Your task to perform on an android device: snooze an email in the gmail app Image 0: 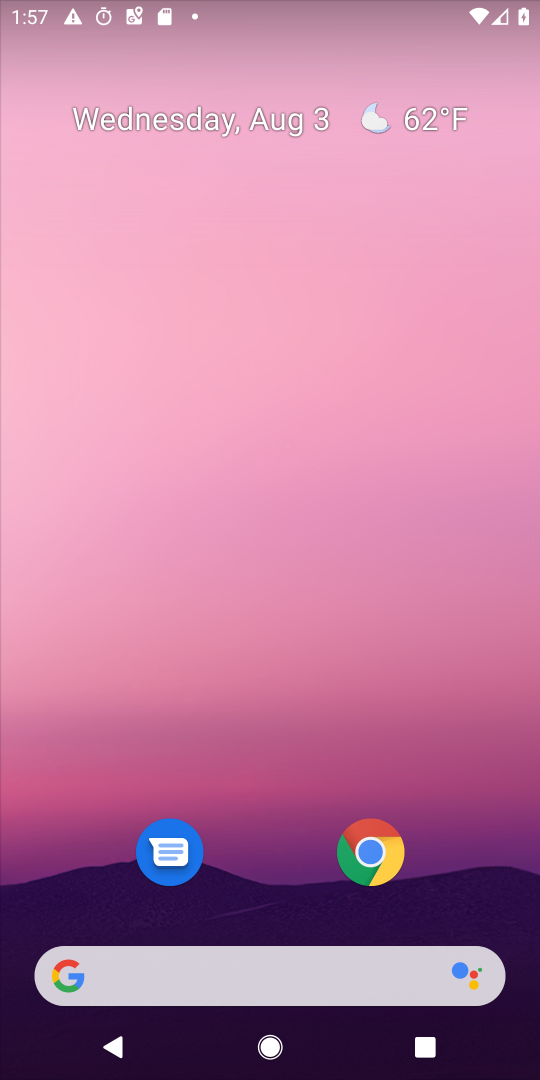
Step 0: drag from (498, 915) to (256, 67)
Your task to perform on an android device: snooze an email in the gmail app Image 1: 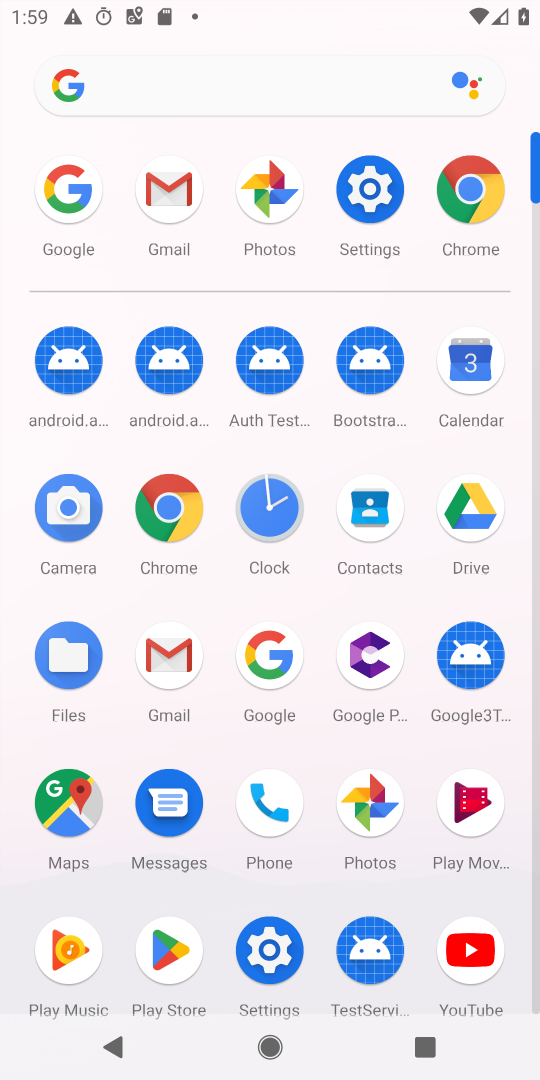
Step 1: click (157, 673)
Your task to perform on an android device: snooze an email in the gmail app Image 2: 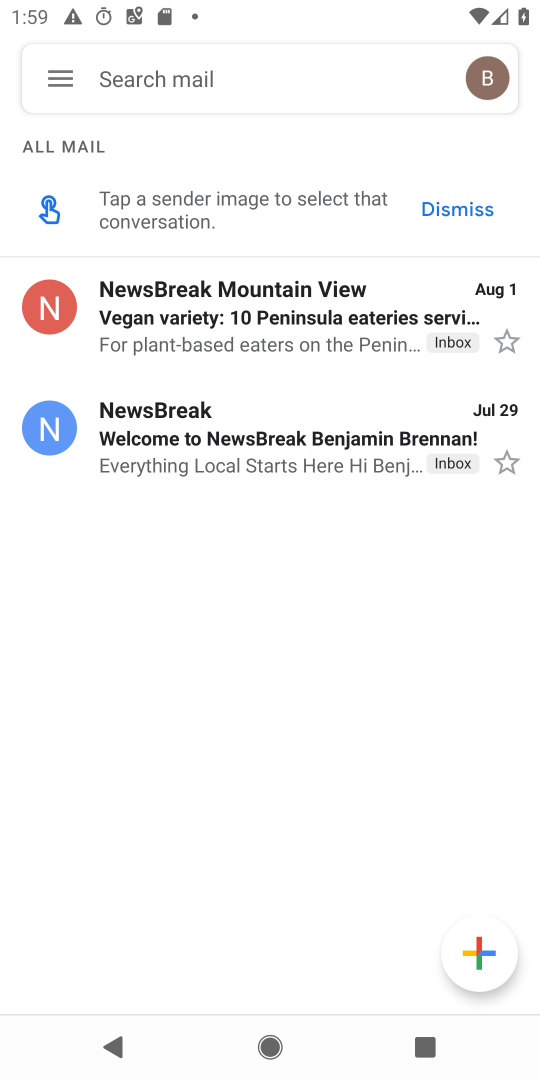
Step 2: click (53, 61)
Your task to perform on an android device: snooze an email in the gmail app Image 3: 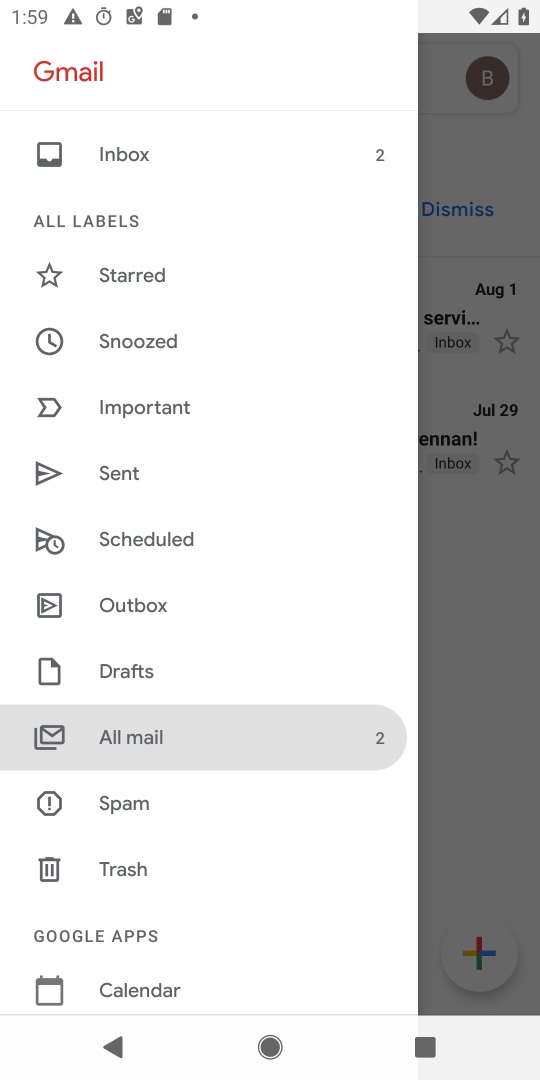
Step 3: click (144, 151)
Your task to perform on an android device: snooze an email in the gmail app Image 4: 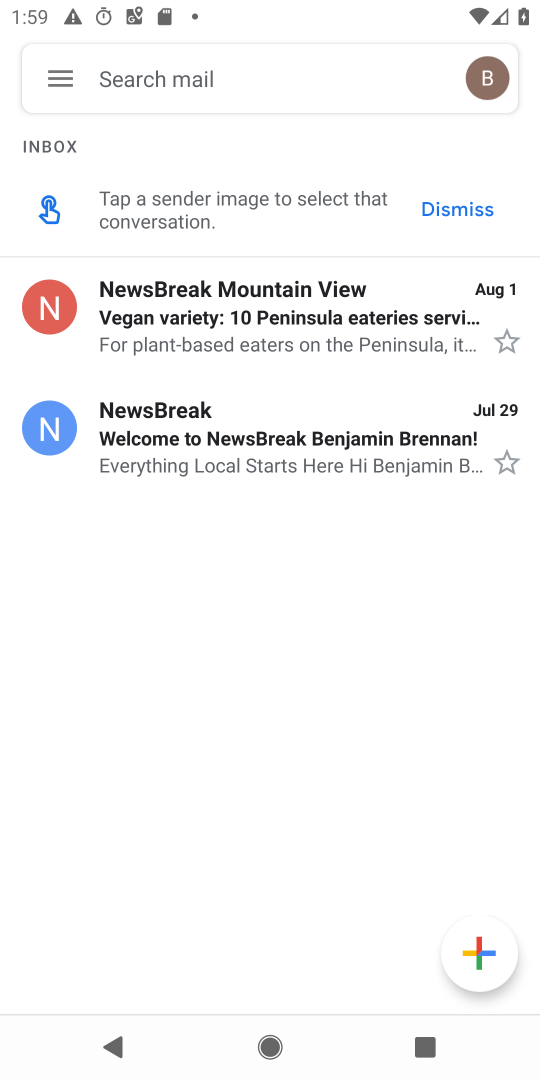
Step 4: click (394, 310)
Your task to perform on an android device: snooze an email in the gmail app Image 5: 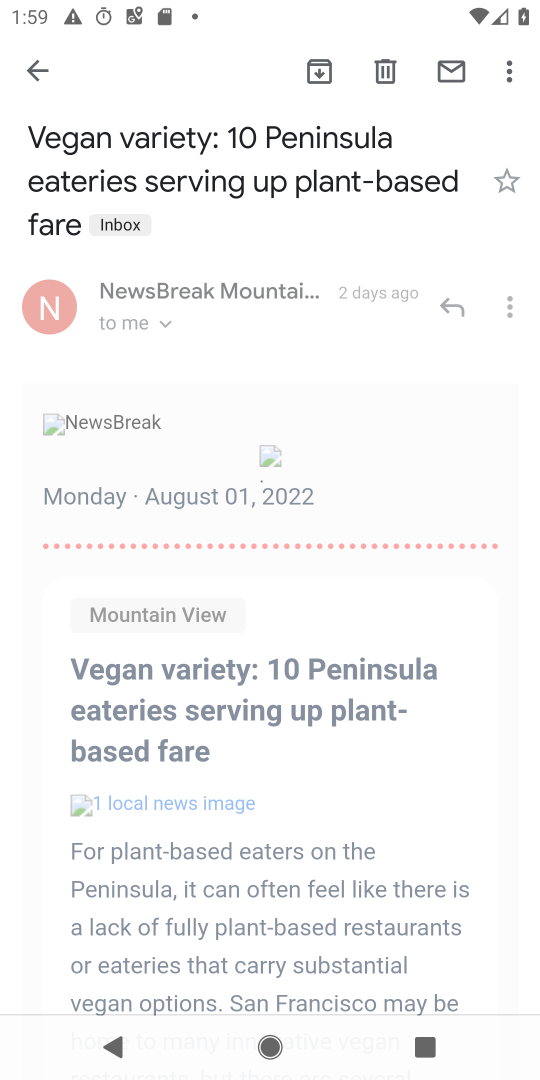
Step 5: click (513, 65)
Your task to perform on an android device: snooze an email in the gmail app Image 6: 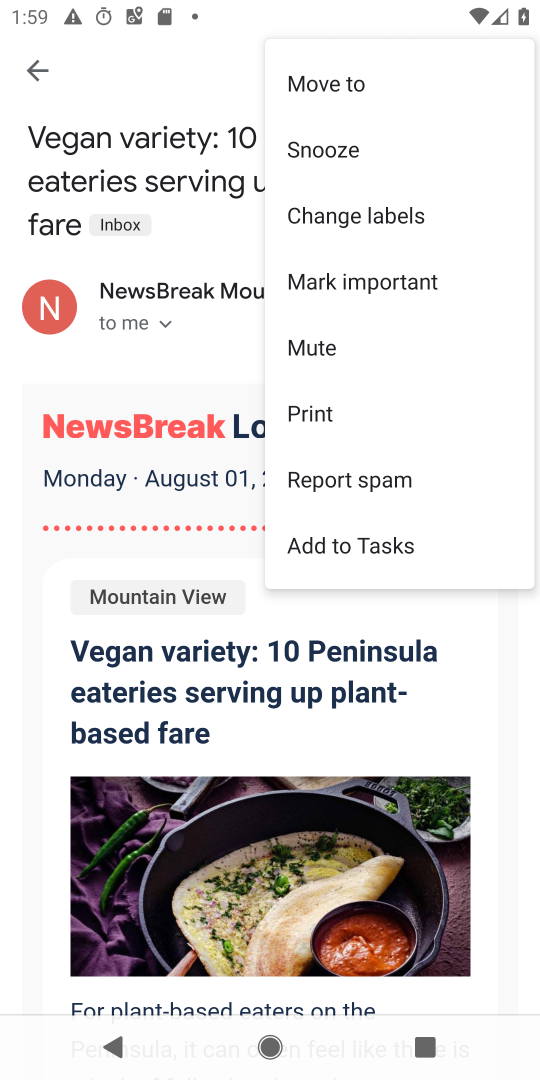
Step 6: click (358, 150)
Your task to perform on an android device: snooze an email in the gmail app Image 7: 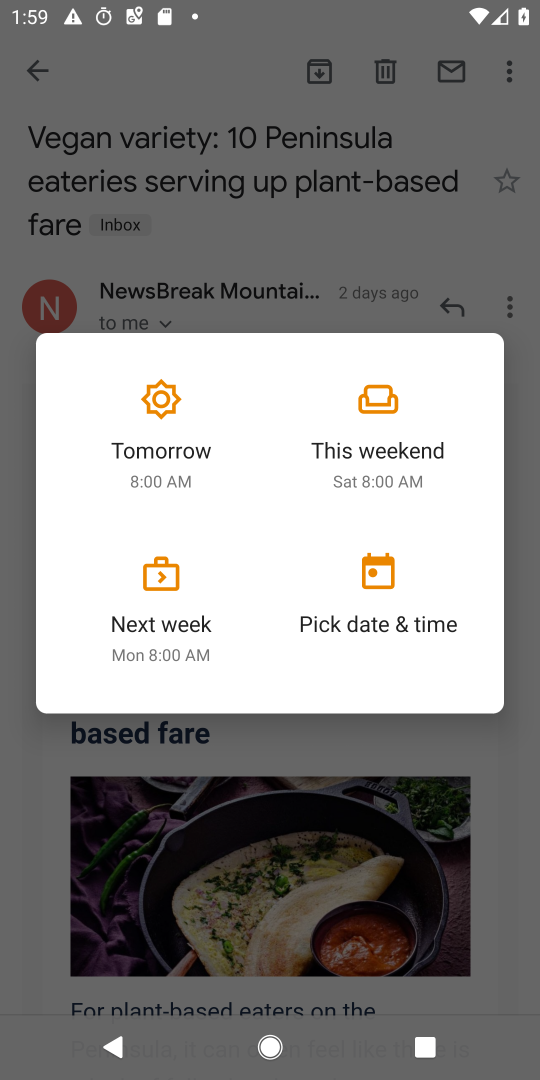
Step 7: click (386, 413)
Your task to perform on an android device: snooze an email in the gmail app Image 8: 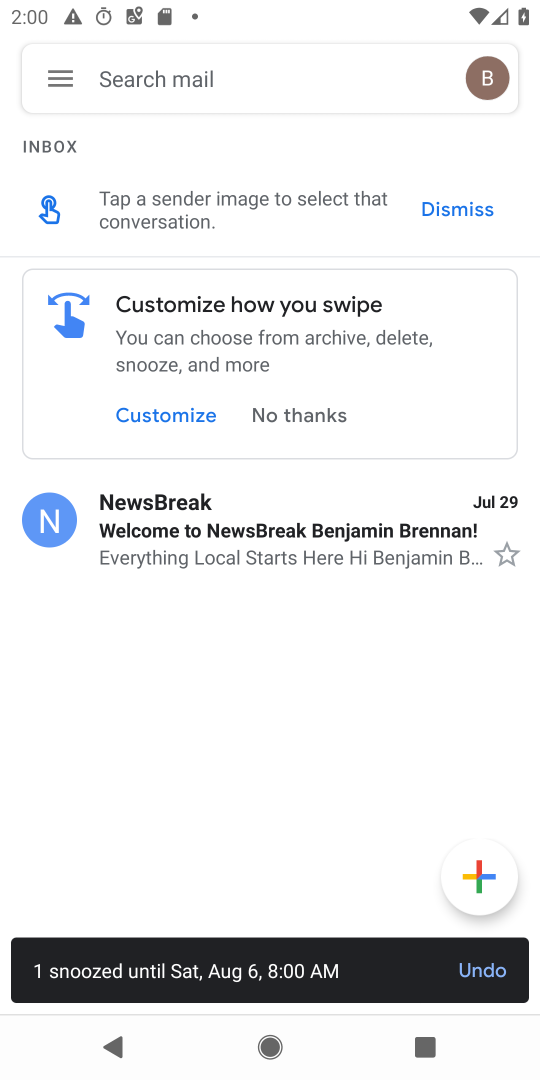
Step 8: task complete